Your task to perform on an android device: Search for seafood restaurants on Google Maps Image 0: 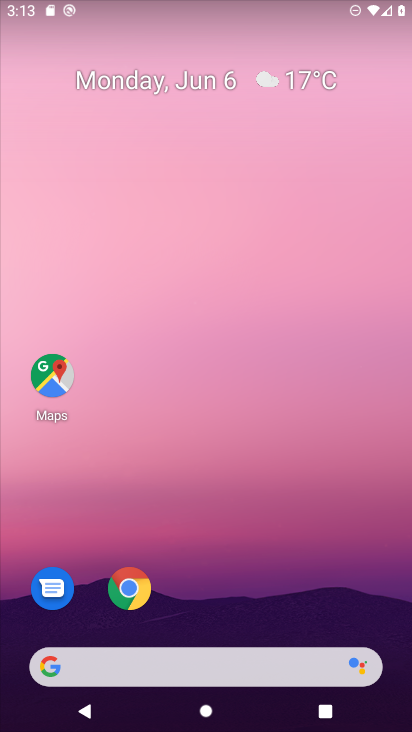
Step 0: click (42, 382)
Your task to perform on an android device: Search for seafood restaurants on Google Maps Image 1: 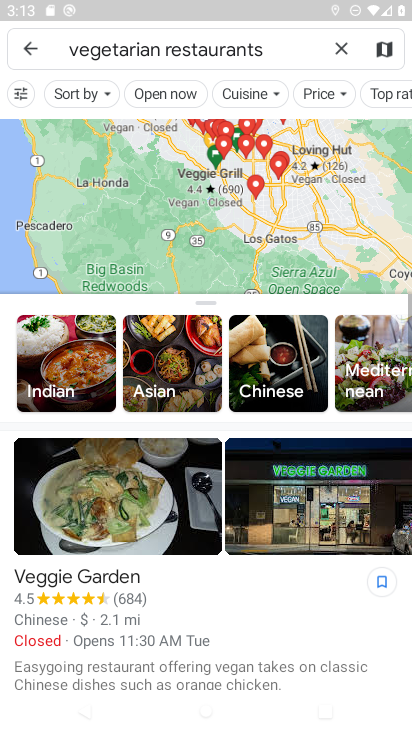
Step 1: click (347, 41)
Your task to perform on an android device: Search for seafood restaurants on Google Maps Image 2: 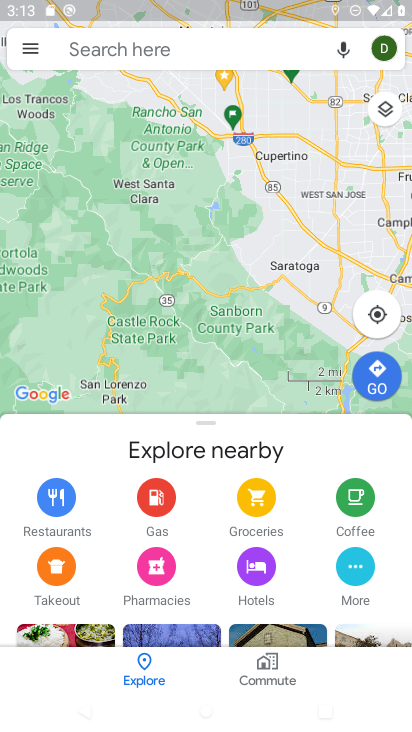
Step 2: click (292, 46)
Your task to perform on an android device: Search for seafood restaurants on Google Maps Image 3: 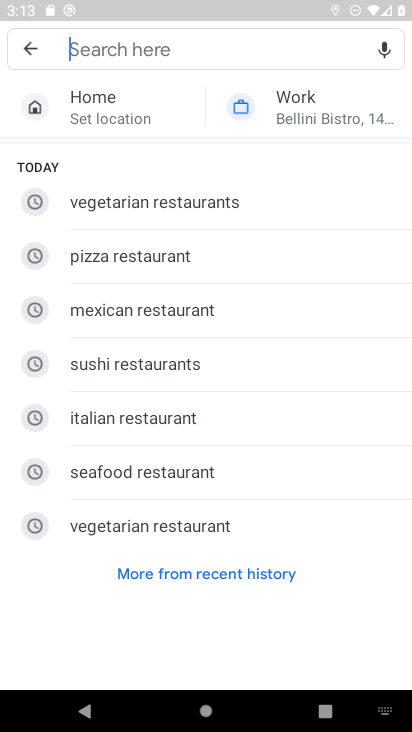
Step 3: click (254, 477)
Your task to perform on an android device: Search for seafood restaurants on Google Maps Image 4: 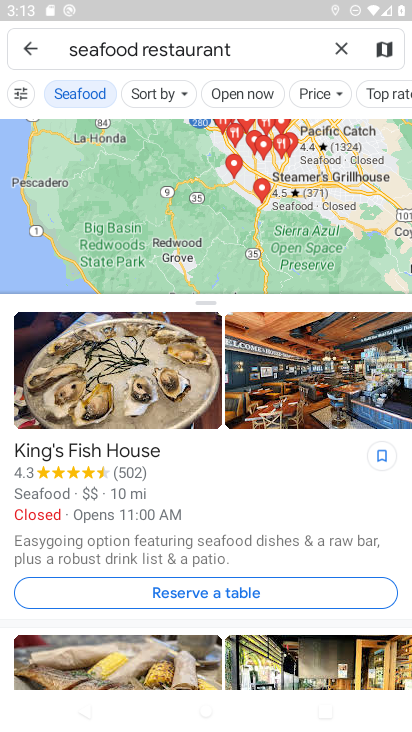
Step 4: task complete